Your task to perform on an android device: open app "Google Chrome" (install if not already installed) Image 0: 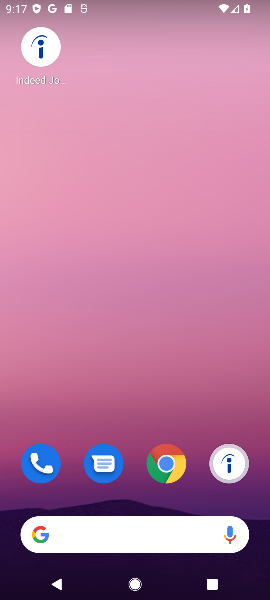
Step 0: drag from (142, 489) to (182, 48)
Your task to perform on an android device: open app "Google Chrome" (install if not already installed) Image 1: 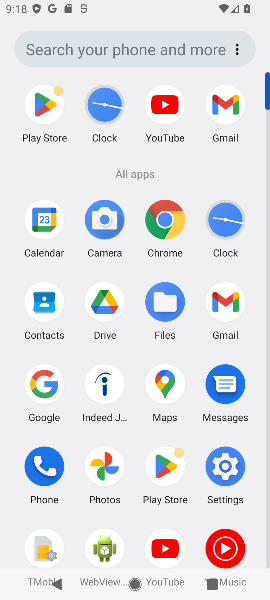
Step 1: click (44, 102)
Your task to perform on an android device: open app "Google Chrome" (install if not already installed) Image 2: 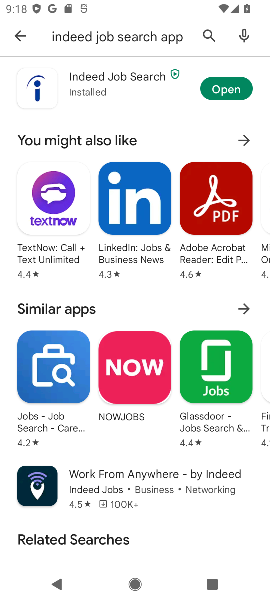
Step 2: click (205, 32)
Your task to perform on an android device: open app "Google Chrome" (install if not already installed) Image 3: 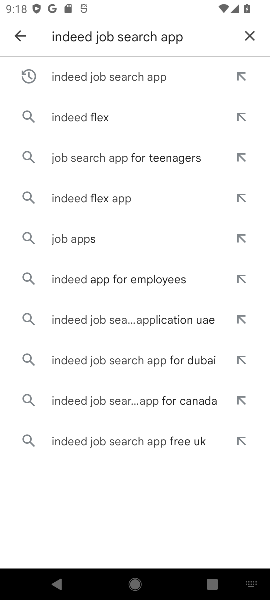
Step 3: click (253, 34)
Your task to perform on an android device: open app "Google Chrome" (install if not already installed) Image 4: 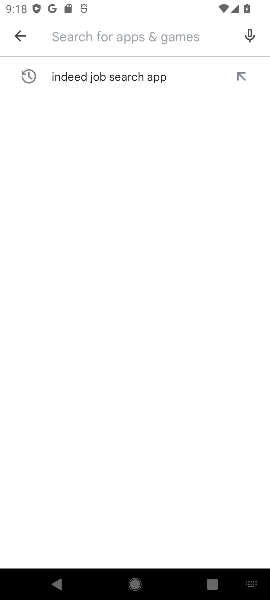
Step 4: type "Google Chrome"
Your task to perform on an android device: open app "Google Chrome" (install if not already installed) Image 5: 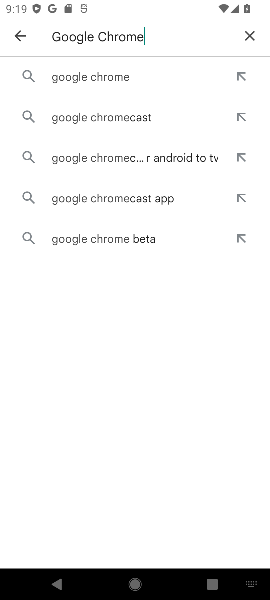
Step 5: click (137, 74)
Your task to perform on an android device: open app "Google Chrome" (install if not already installed) Image 6: 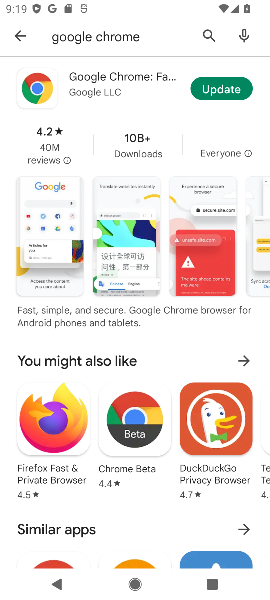
Step 6: click (212, 87)
Your task to perform on an android device: open app "Google Chrome" (install if not already installed) Image 7: 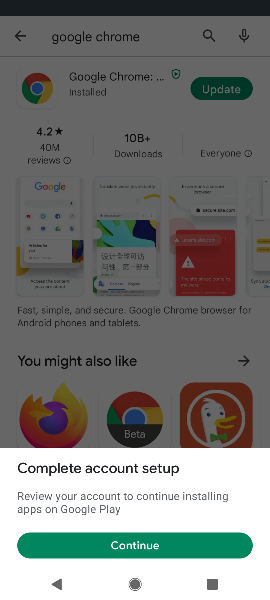
Step 7: click (135, 549)
Your task to perform on an android device: open app "Google Chrome" (install if not already installed) Image 8: 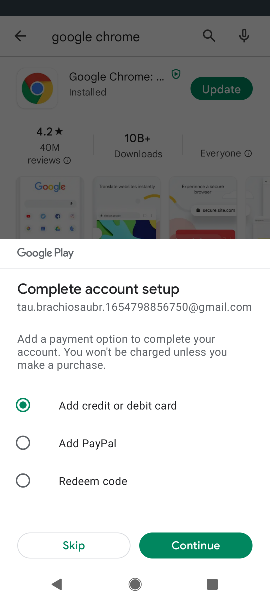
Step 8: click (61, 543)
Your task to perform on an android device: open app "Google Chrome" (install if not already installed) Image 9: 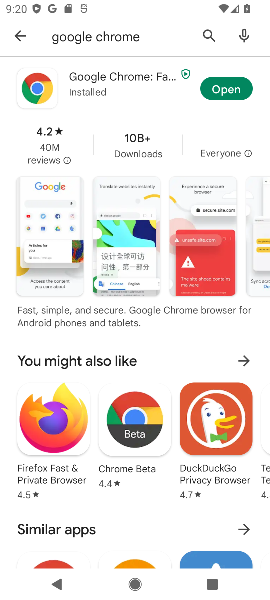
Step 9: click (238, 88)
Your task to perform on an android device: open app "Google Chrome" (install if not already installed) Image 10: 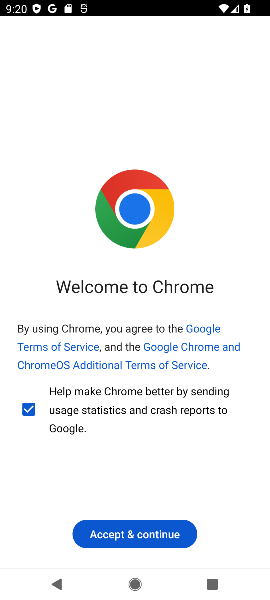
Step 10: click (127, 533)
Your task to perform on an android device: open app "Google Chrome" (install if not already installed) Image 11: 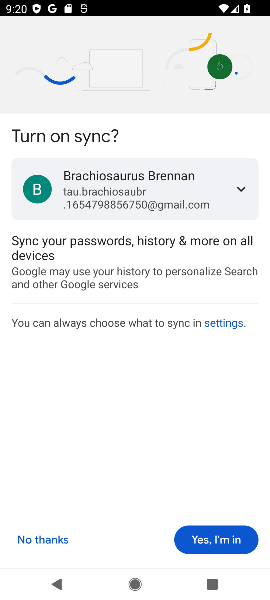
Step 11: click (214, 541)
Your task to perform on an android device: open app "Google Chrome" (install if not already installed) Image 12: 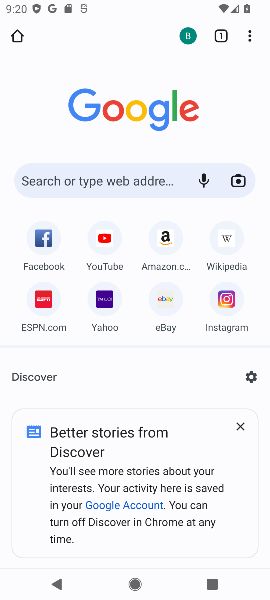
Step 12: task complete